Your task to perform on an android device: Add "razer kraken" to the cart on walmart.com Image 0: 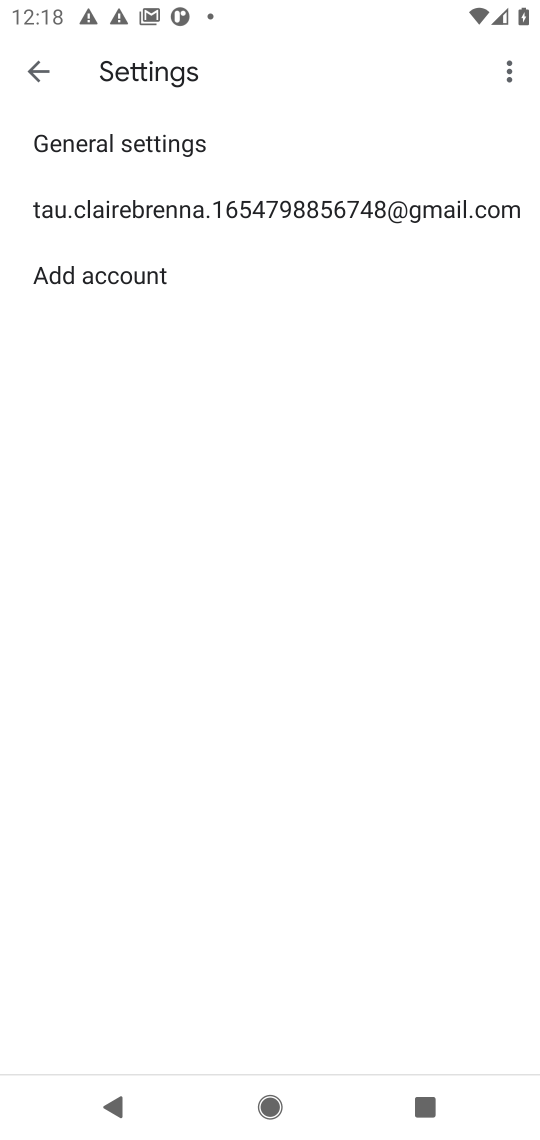
Step 0: press home button
Your task to perform on an android device: Add "razer kraken" to the cart on walmart.com Image 1: 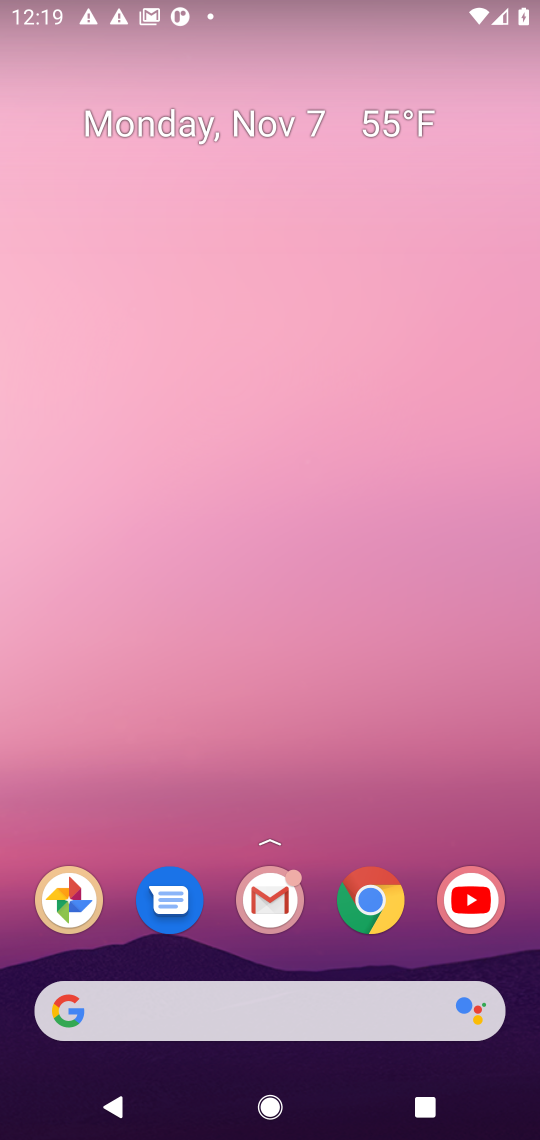
Step 1: click (353, 1024)
Your task to perform on an android device: Add "razer kraken" to the cart on walmart.com Image 2: 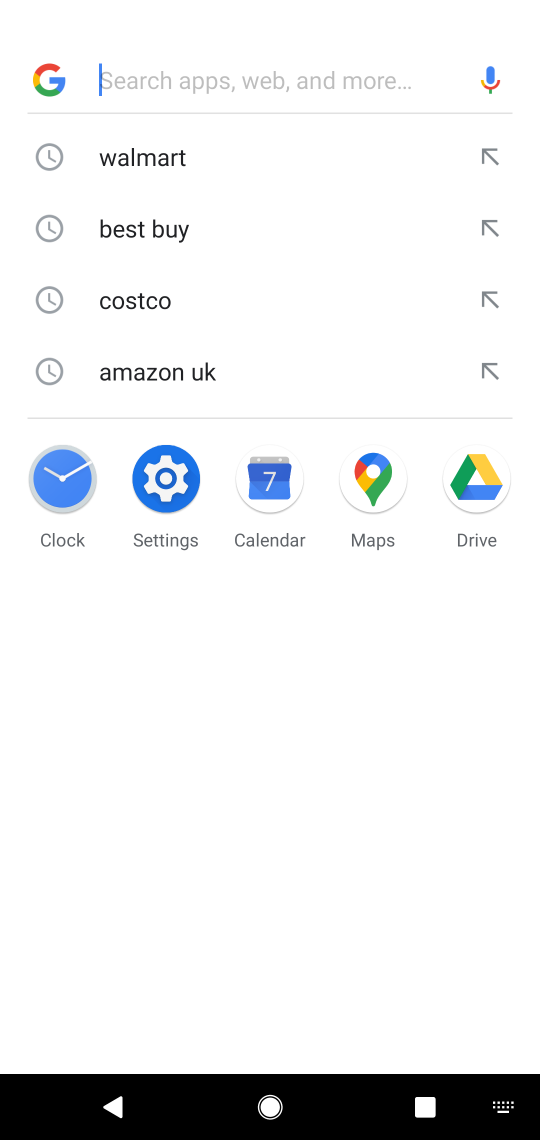
Step 2: click (205, 177)
Your task to perform on an android device: Add "razer kraken" to the cart on walmart.com Image 3: 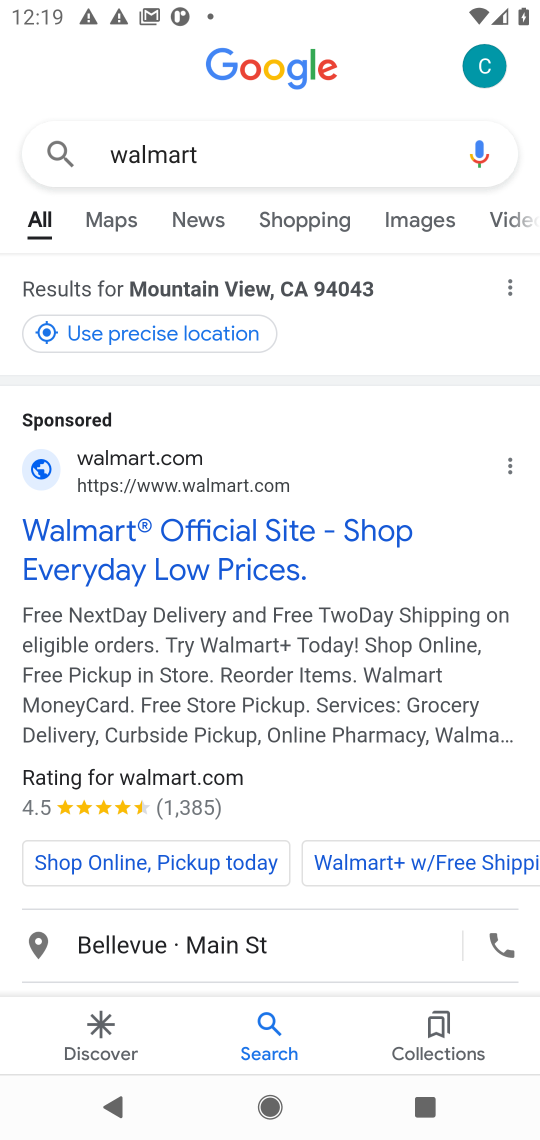
Step 3: click (253, 560)
Your task to perform on an android device: Add "razer kraken" to the cart on walmart.com Image 4: 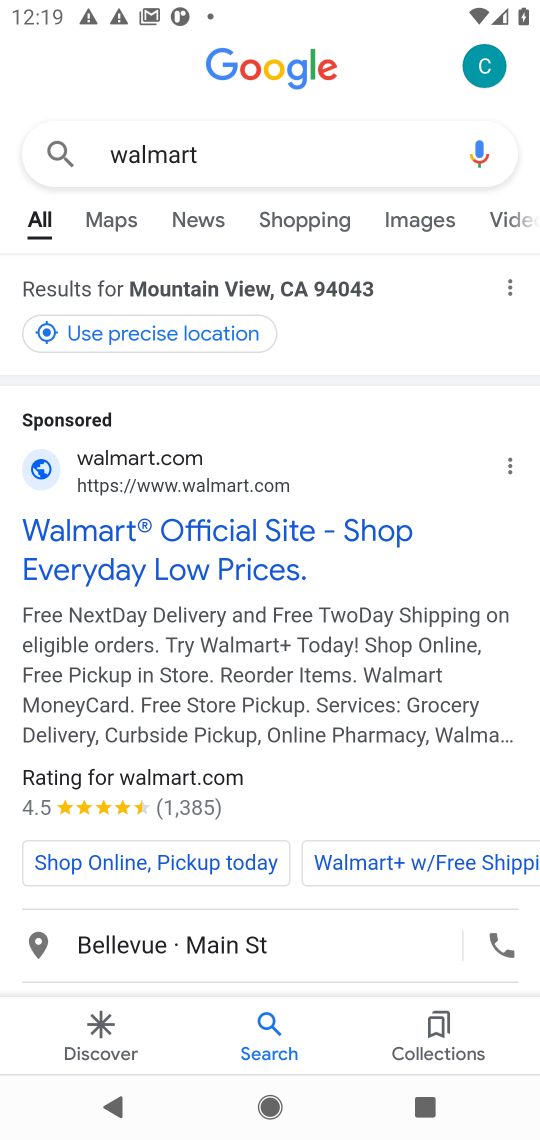
Step 4: task complete